Your task to perform on an android device: turn off location Image 0: 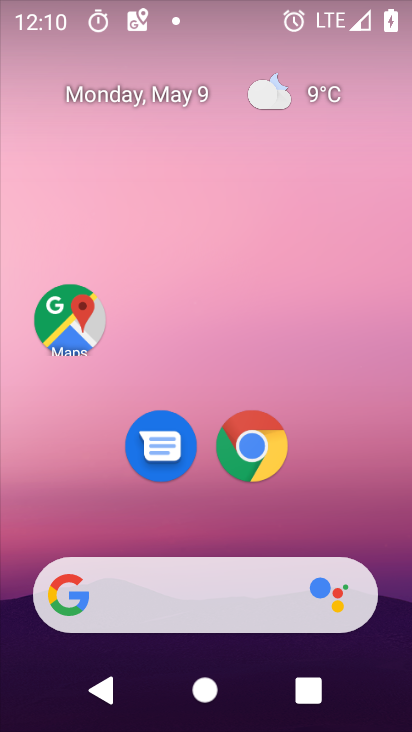
Step 0: drag from (380, 555) to (378, 14)
Your task to perform on an android device: turn off location Image 1: 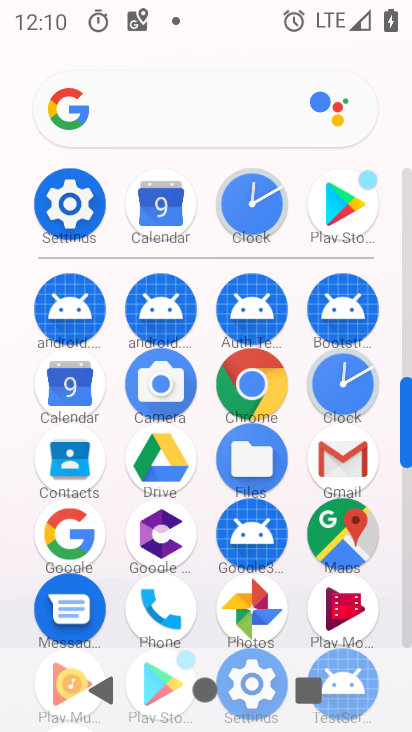
Step 1: click (72, 206)
Your task to perform on an android device: turn off location Image 2: 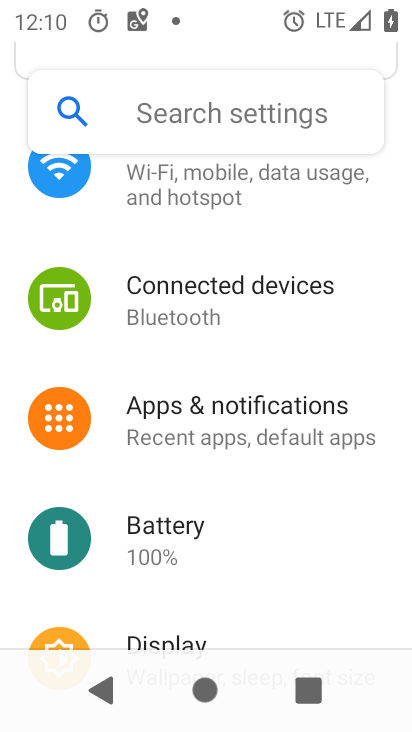
Step 2: drag from (395, 570) to (396, 283)
Your task to perform on an android device: turn off location Image 3: 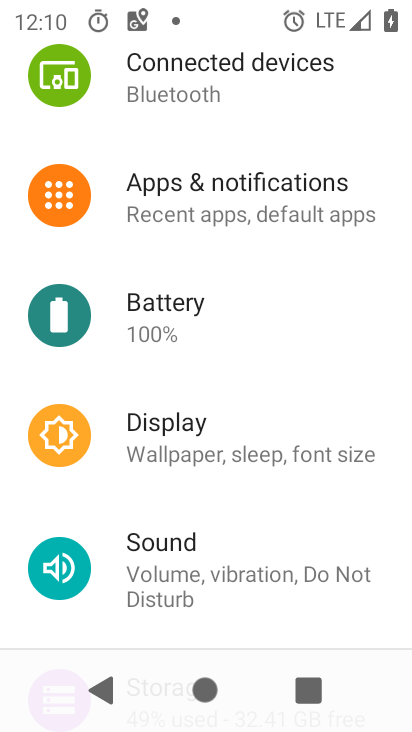
Step 3: drag from (357, 536) to (356, 222)
Your task to perform on an android device: turn off location Image 4: 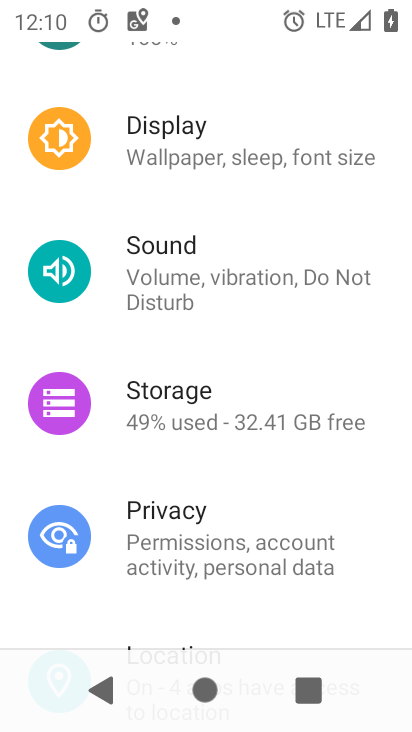
Step 4: drag from (354, 357) to (354, 163)
Your task to perform on an android device: turn off location Image 5: 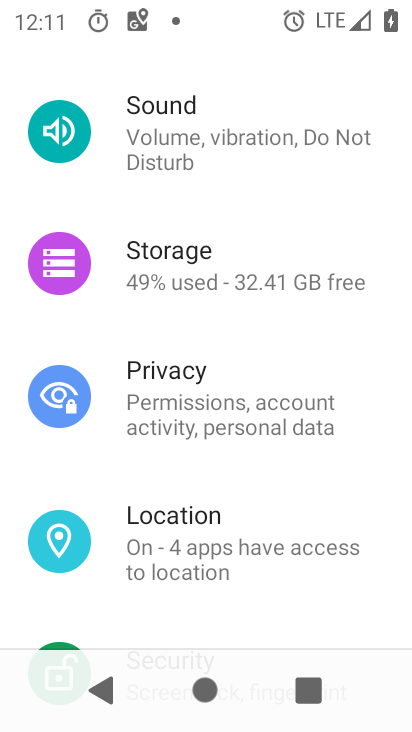
Step 5: click (169, 555)
Your task to perform on an android device: turn off location Image 6: 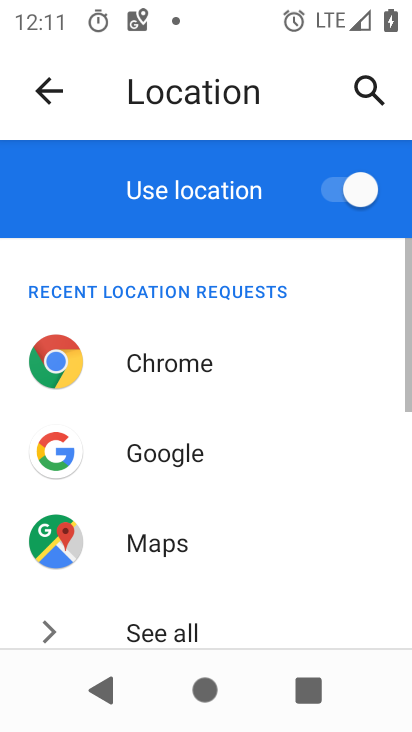
Step 6: click (353, 186)
Your task to perform on an android device: turn off location Image 7: 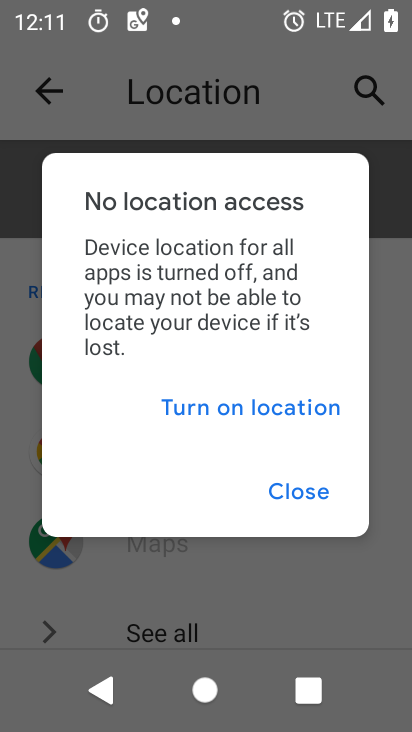
Step 7: click (294, 495)
Your task to perform on an android device: turn off location Image 8: 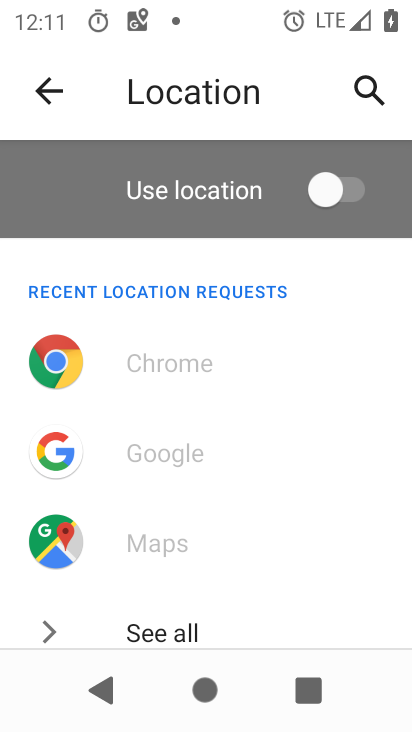
Step 8: task complete